Your task to perform on an android device: delete browsing data in the chrome app Image 0: 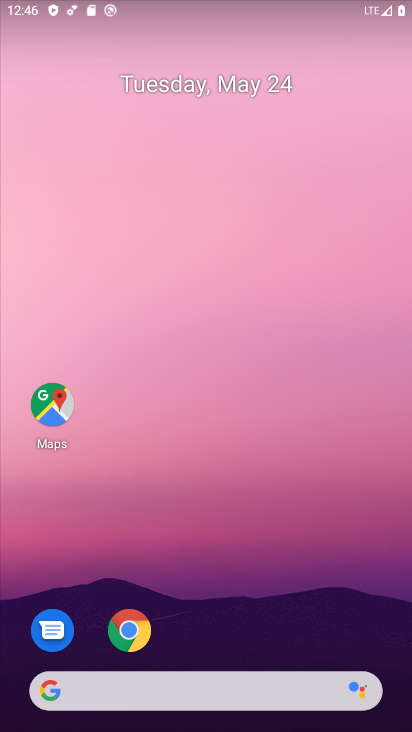
Step 0: click (135, 627)
Your task to perform on an android device: delete browsing data in the chrome app Image 1: 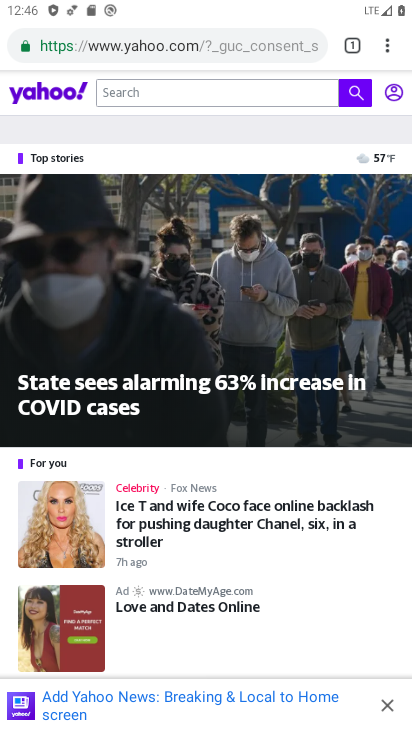
Step 1: click (389, 58)
Your task to perform on an android device: delete browsing data in the chrome app Image 2: 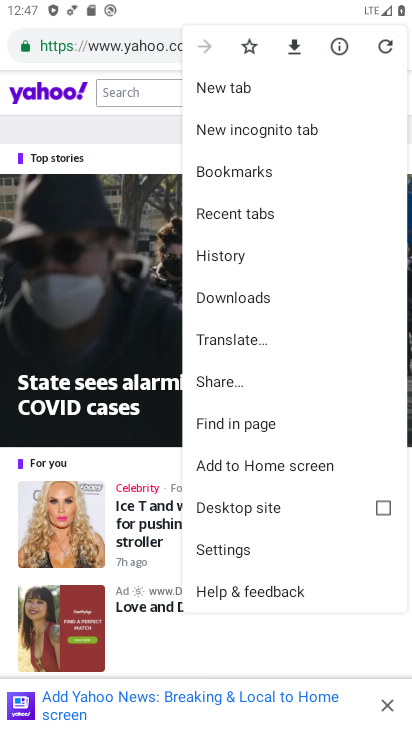
Step 2: click (247, 252)
Your task to perform on an android device: delete browsing data in the chrome app Image 3: 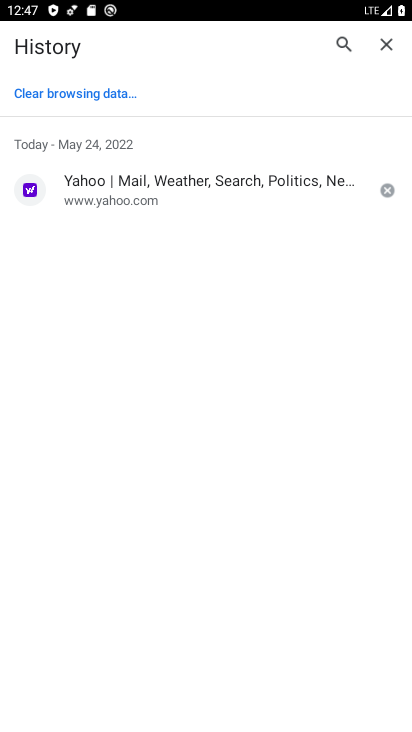
Step 3: click (95, 95)
Your task to perform on an android device: delete browsing data in the chrome app Image 4: 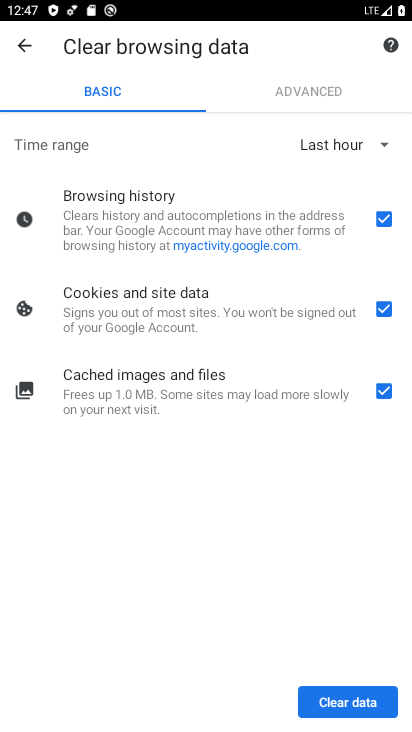
Step 4: click (346, 141)
Your task to perform on an android device: delete browsing data in the chrome app Image 5: 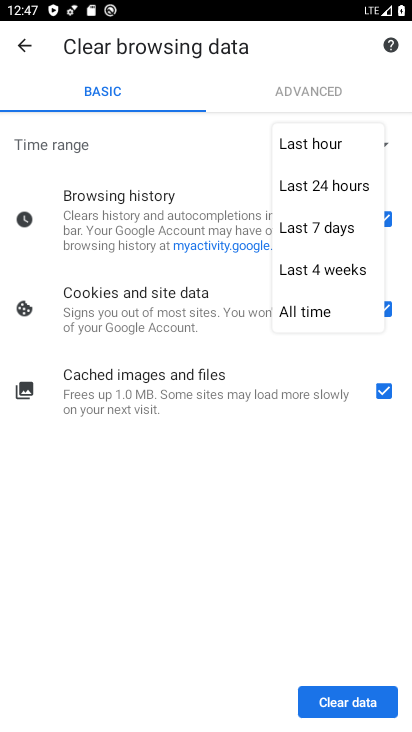
Step 5: click (324, 313)
Your task to perform on an android device: delete browsing data in the chrome app Image 6: 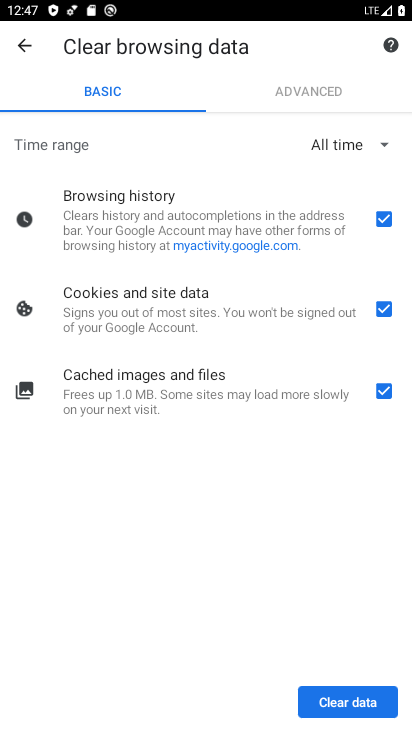
Step 6: drag from (212, 200) to (370, 695)
Your task to perform on an android device: delete browsing data in the chrome app Image 7: 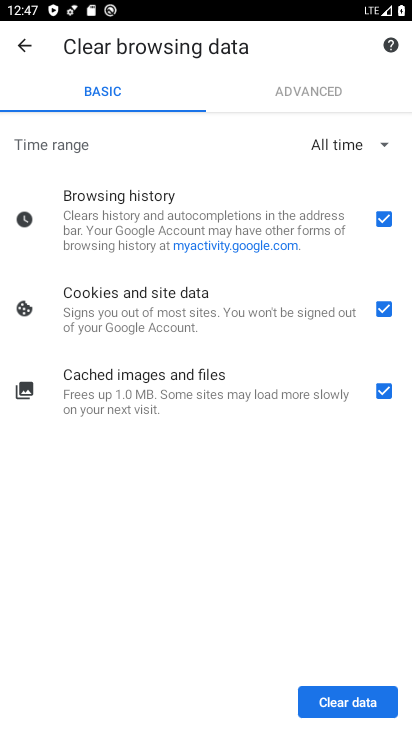
Step 7: click (370, 693)
Your task to perform on an android device: delete browsing data in the chrome app Image 8: 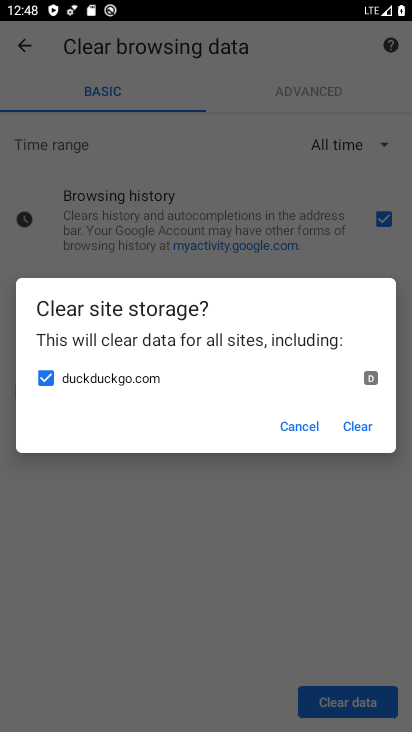
Step 8: click (365, 430)
Your task to perform on an android device: delete browsing data in the chrome app Image 9: 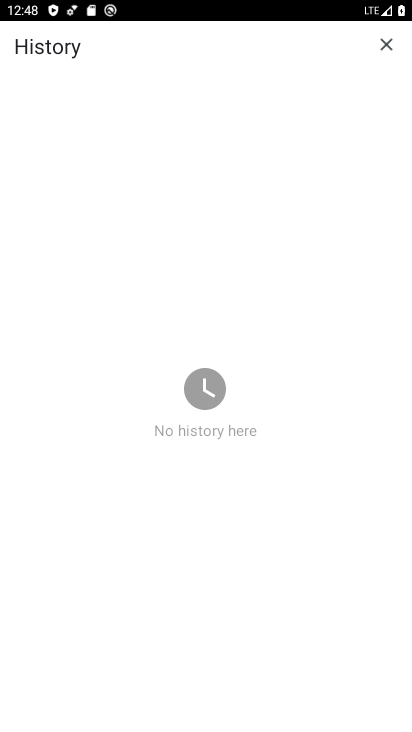
Step 9: task complete